Your task to perform on an android device: check out phone information Image 0: 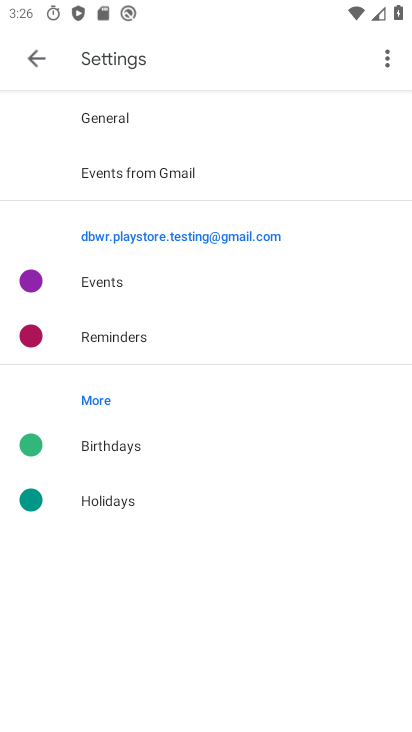
Step 0: press back button
Your task to perform on an android device: check out phone information Image 1: 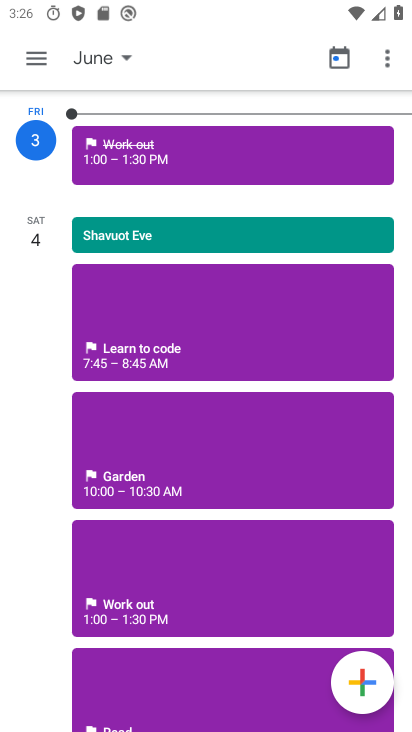
Step 1: press back button
Your task to perform on an android device: check out phone information Image 2: 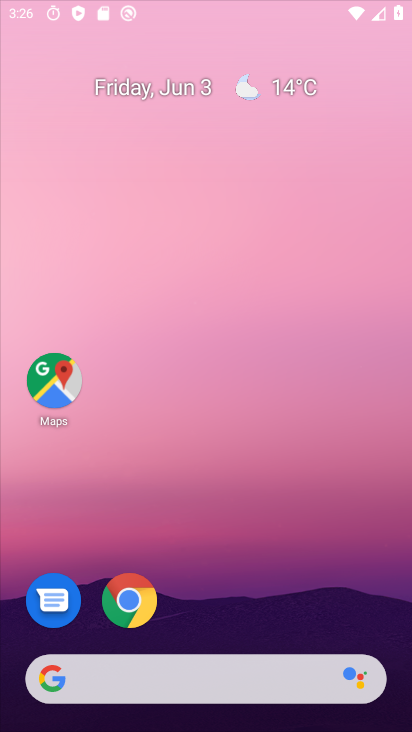
Step 2: press home button
Your task to perform on an android device: check out phone information Image 3: 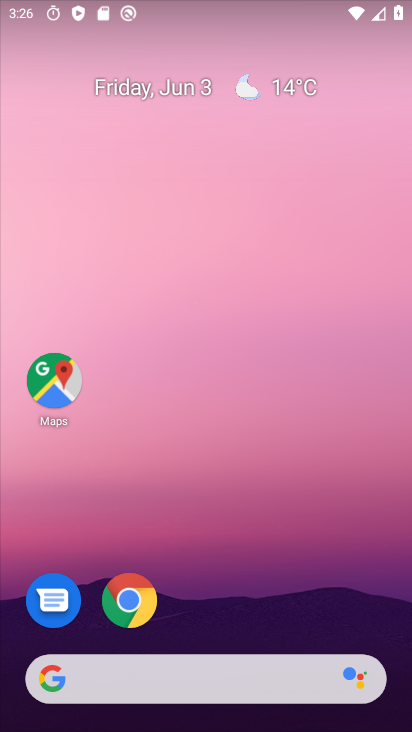
Step 3: drag from (249, 572) to (246, 9)
Your task to perform on an android device: check out phone information Image 4: 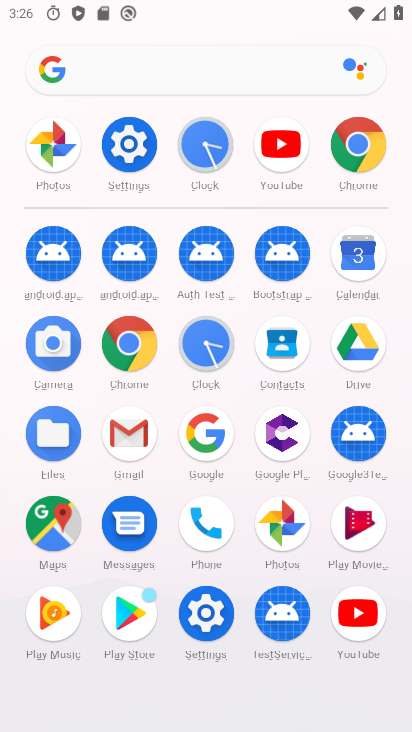
Step 4: click (205, 609)
Your task to perform on an android device: check out phone information Image 5: 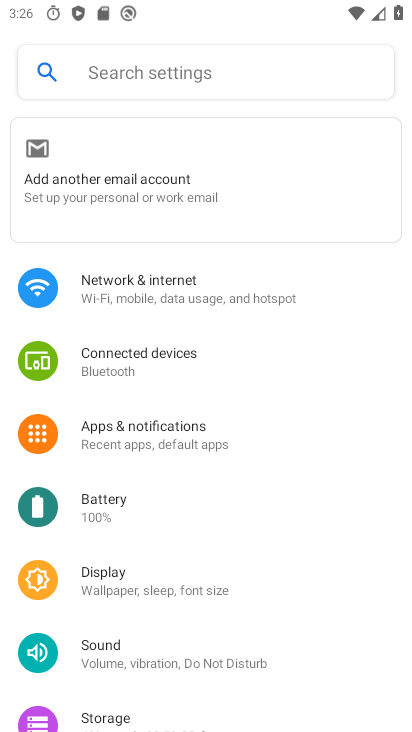
Step 5: drag from (292, 554) to (281, 161)
Your task to perform on an android device: check out phone information Image 6: 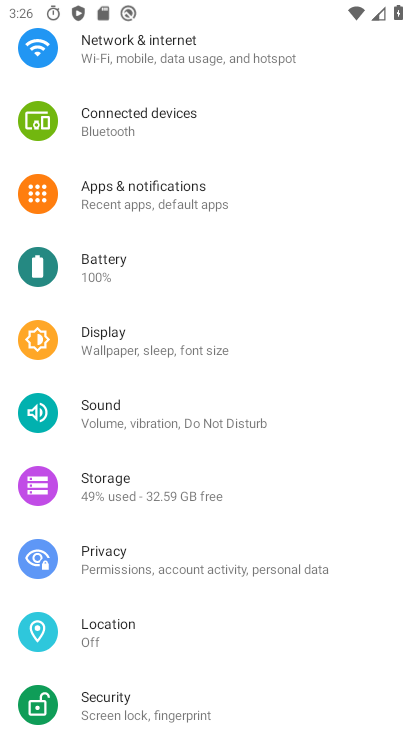
Step 6: drag from (270, 605) to (278, 156)
Your task to perform on an android device: check out phone information Image 7: 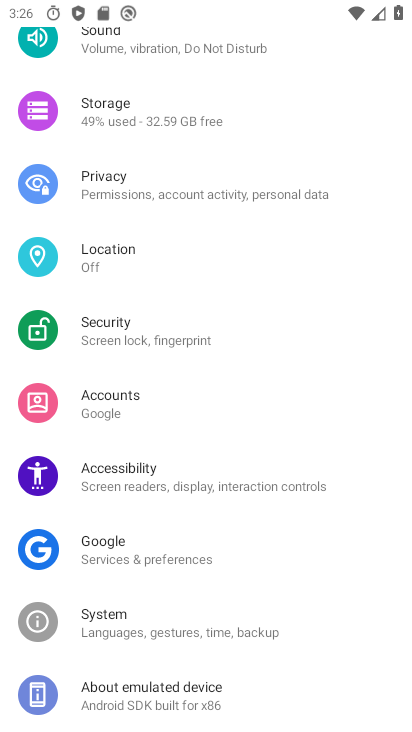
Step 7: drag from (252, 576) to (269, 129)
Your task to perform on an android device: check out phone information Image 8: 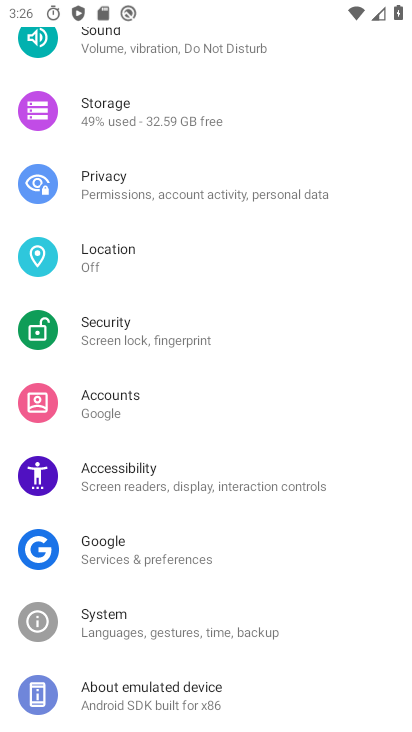
Step 8: click (202, 665)
Your task to perform on an android device: check out phone information Image 9: 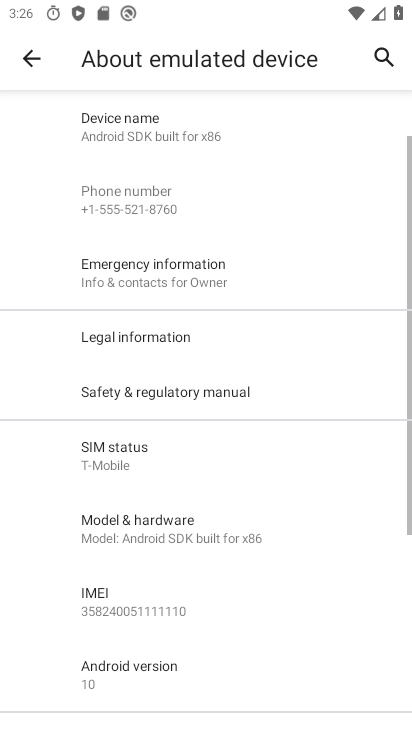
Step 9: task complete